Your task to perform on an android device: Go to location settings Image 0: 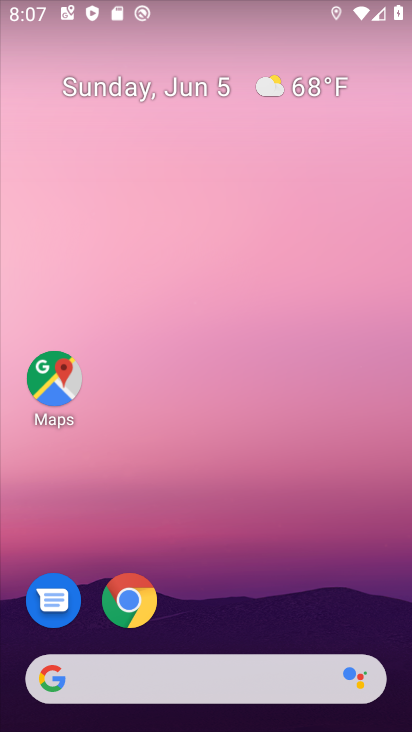
Step 0: drag from (237, 598) to (235, 42)
Your task to perform on an android device: Go to location settings Image 1: 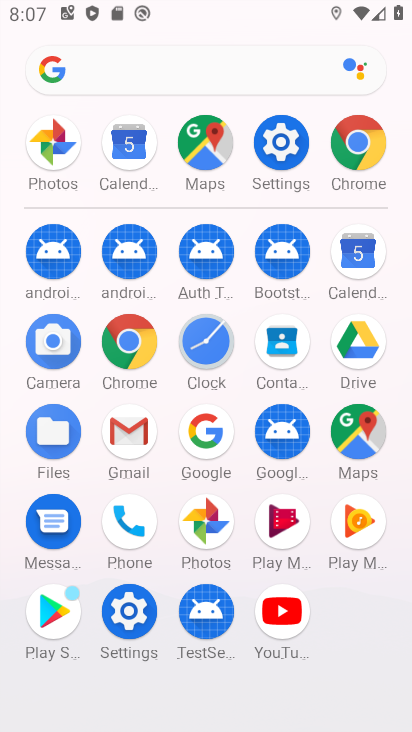
Step 1: click (278, 141)
Your task to perform on an android device: Go to location settings Image 2: 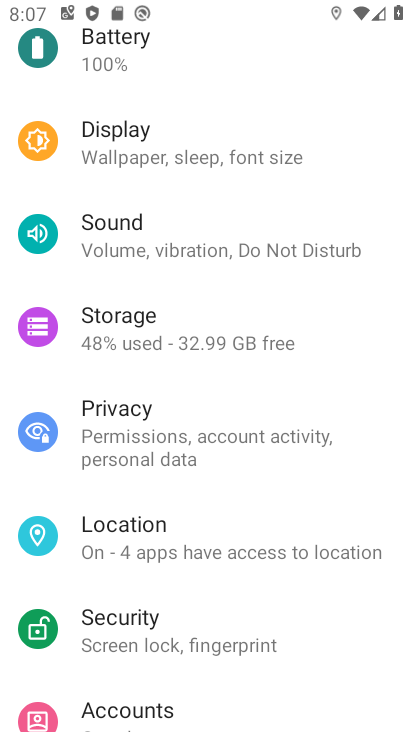
Step 2: click (198, 524)
Your task to perform on an android device: Go to location settings Image 3: 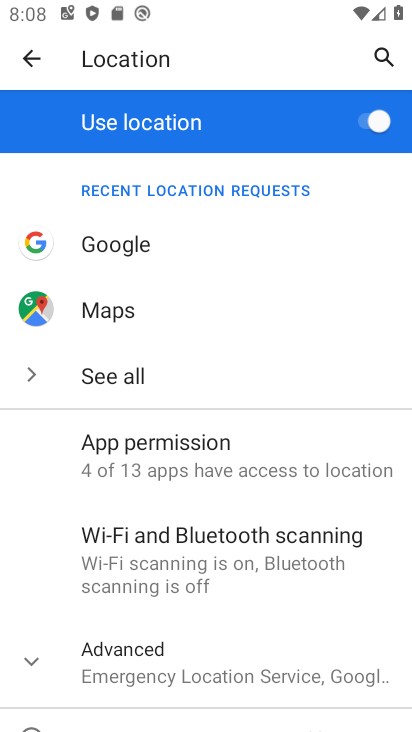
Step 3: task complete